Your task to perform on an android device: snooze an email in the gmail app Image 0: 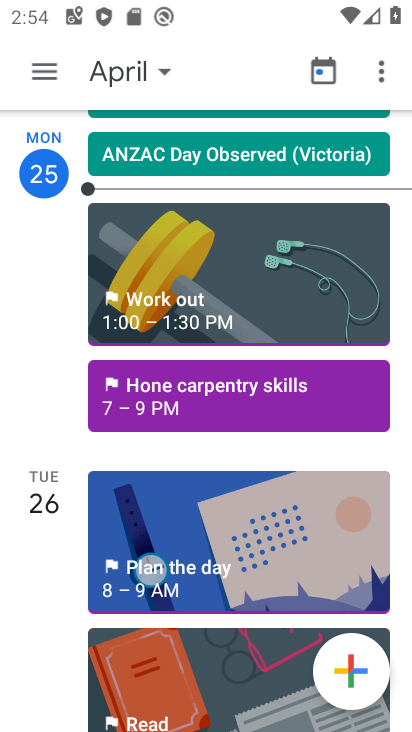
Step 0: drag from (260, 530) to (241, 286)
Your task to perform on an android device: snooze an email in the gmail app Image 1: 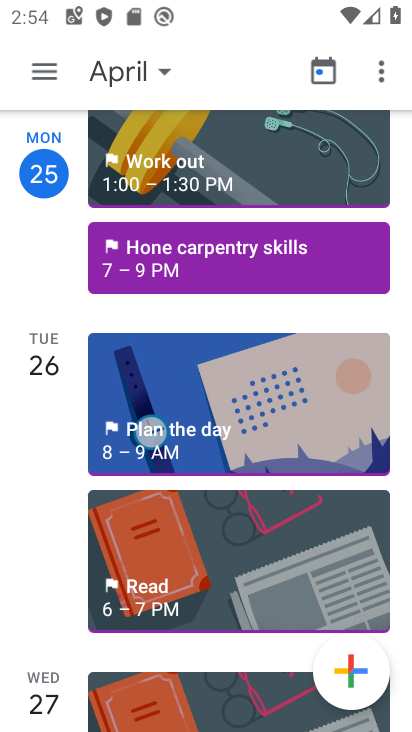
Step 1: press home button
Your task to perform on an android device: snooze an email in the gmail app Image 2: 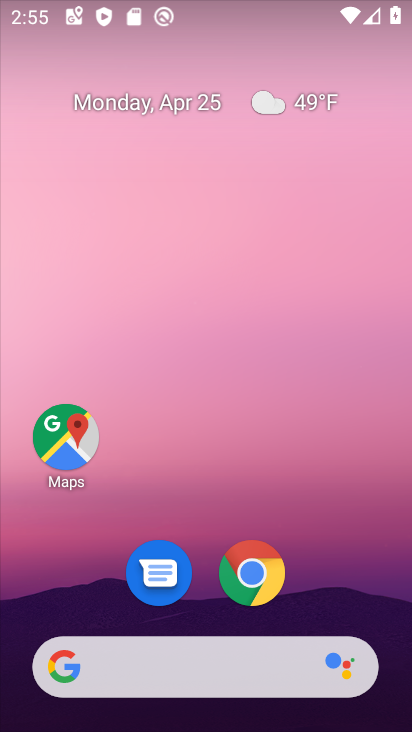
Step 2: drag from (267, 241) to (302, 20)
Your task to perform on an android device: snooze an email in the gmail app Image 3: 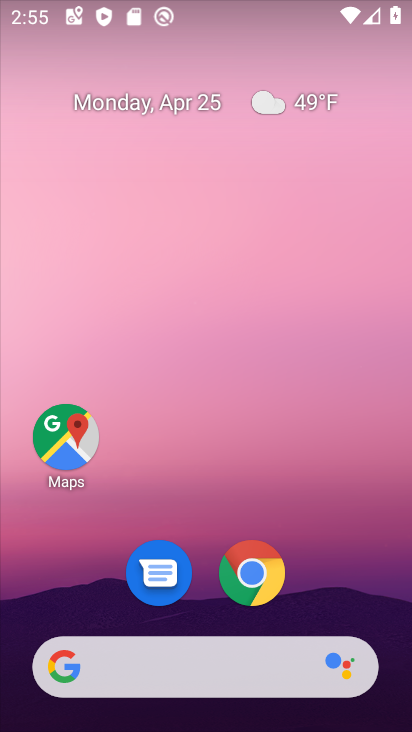
Step 3: drag from (317, 544) to (214, 4)
Your task to perform on an android device: snooze an email in the gmail app Image 4: 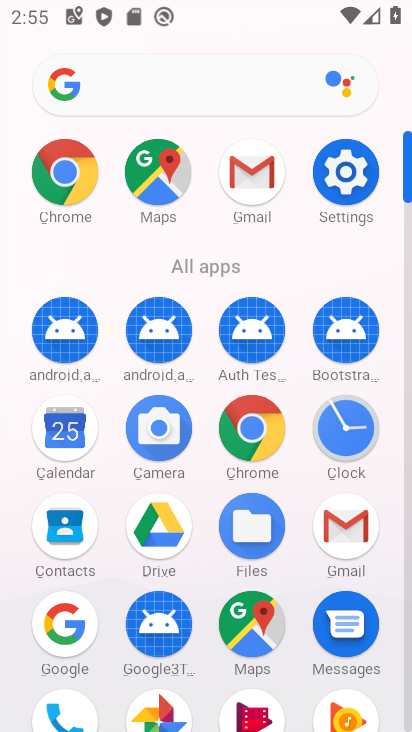
Step 4: click (351, 536)
Your task to perform on an android device: snooze an email in the gmail app Image 5: 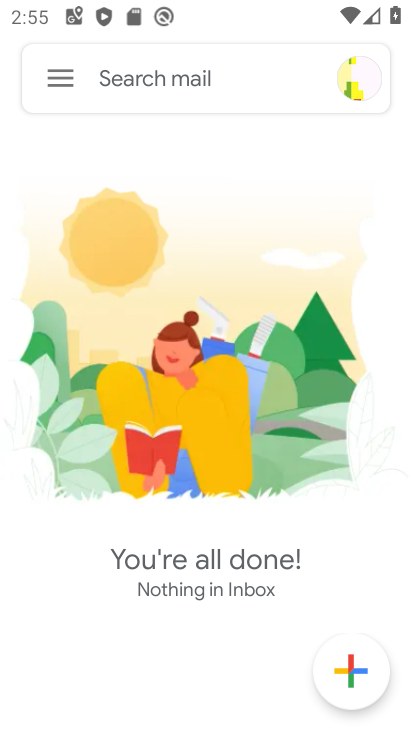
Step 5: click (46, 60)
Your task to perform on an android device: snooze an email in the gmail app Image 6: 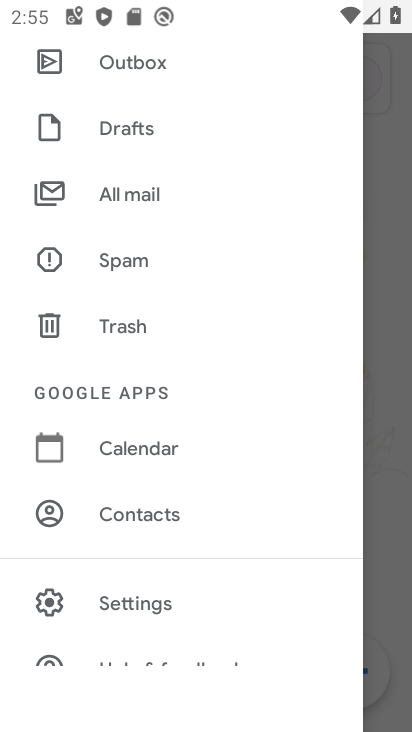
Step 6: drag from (148, 160) to (166, 729)
Your task to perform on an android device: snooze an email in the gmail app Image 7: 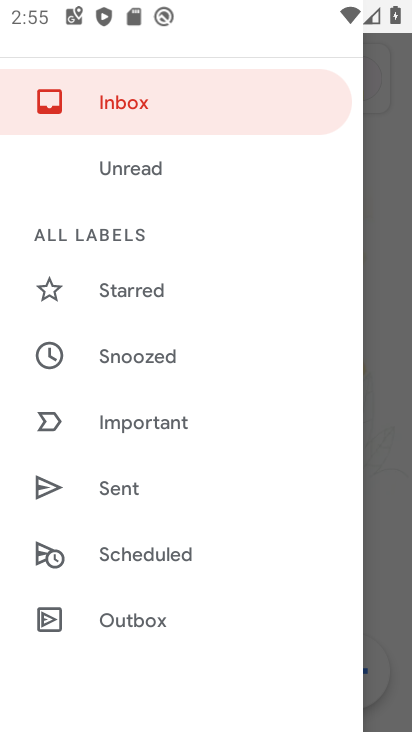
Step 7: drag from (150, 284) to (163, 152)
Your task to perform on an android device: snooze an email in the gmail app Image 8: 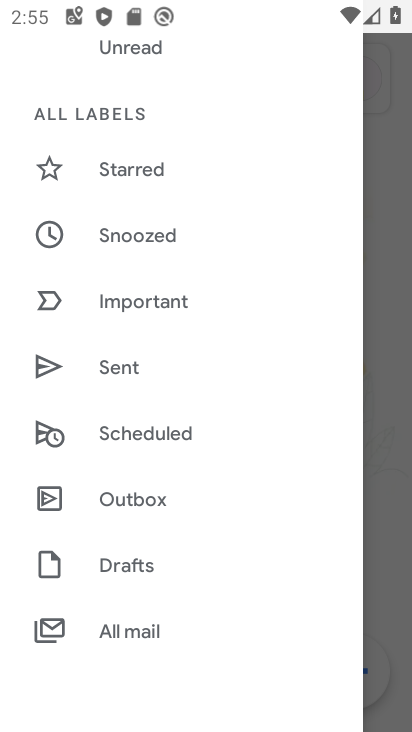
Step 8: click (150, 625)
Your task to perform on an android device: snooze an email in the gmail app Image 9: 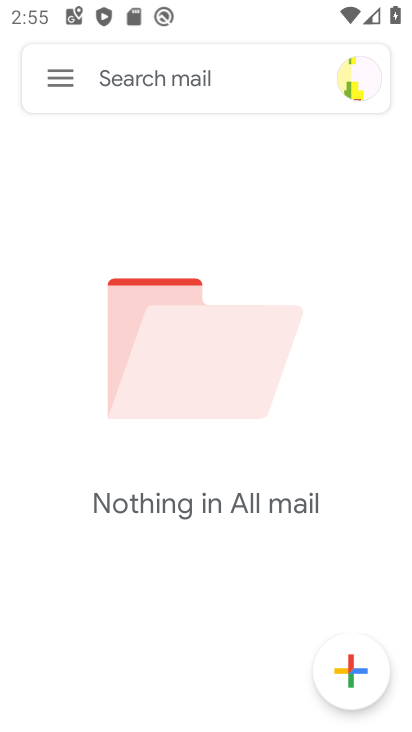
Step 9: task complete